Your task to perform on an android device: open device folders in google photos Image 0: 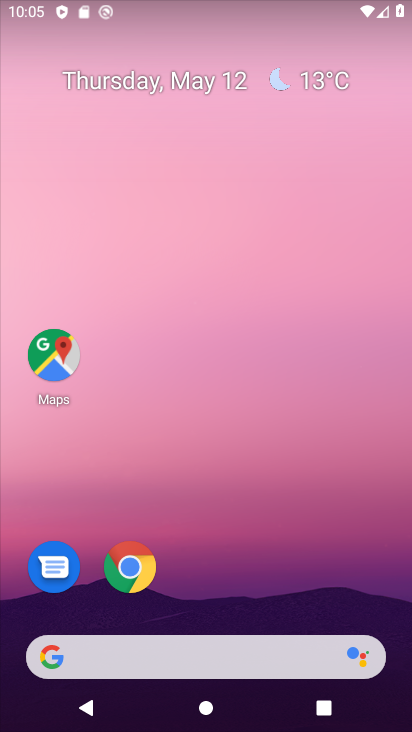
Step 0: drag from (268, 587) to (262, 149)
Your task to perform on an android device: open device folders in google photos Image 1: 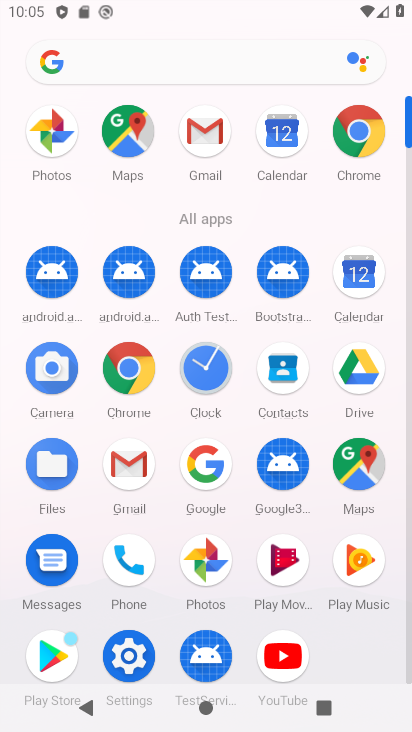
Step 1: click (50, 132)
Your task to perform on an android device: open device folders in google photos Image 2: 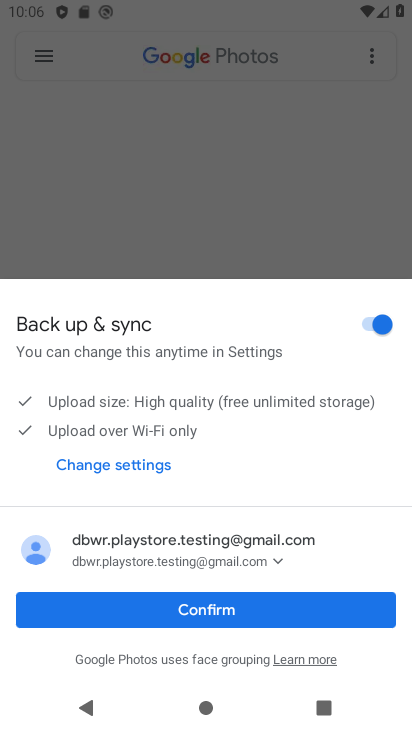
Step 2: press home button
Your task to perform on an android device: open device folders in google photos Image 3: 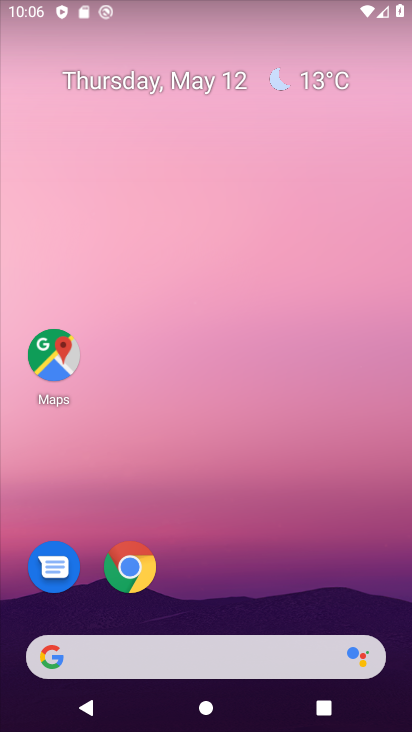
Step 3: drag from (182, 439) to (196, 136)
Your task to perform on an android device: open device folders in google photos Image 4: 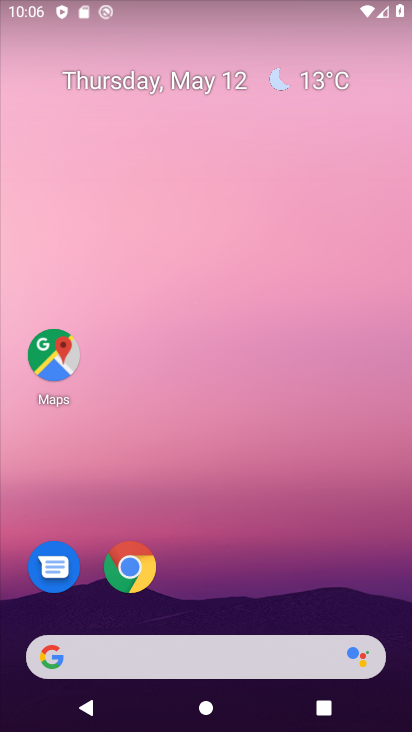
Step 4: drag from (204, 506) to (213, 138)
Your task to perform on an android device: open device folders in google photos Image 5: 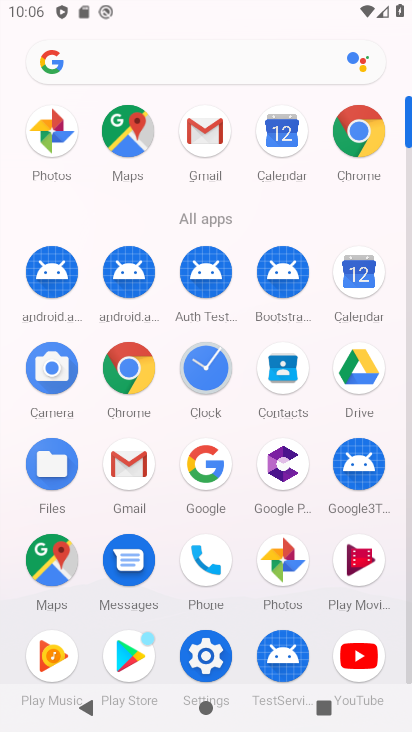
Step 5: click (42, 136)
Your task to perform on an android device: open device folders in google photos Image 6: 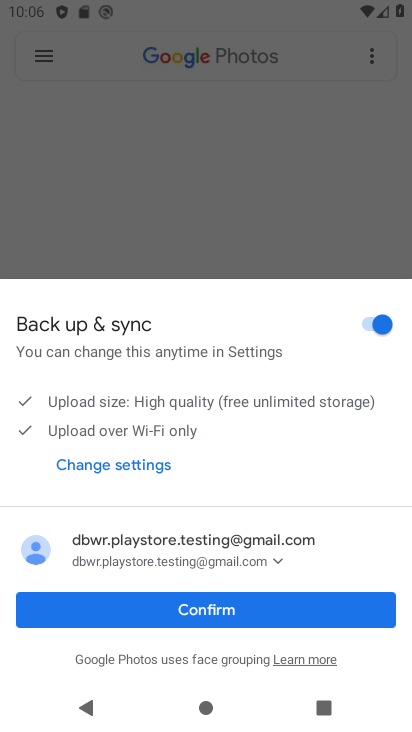
Step 6: press back button
Your task to perform on an android device: open device folders in google photos Image 7: 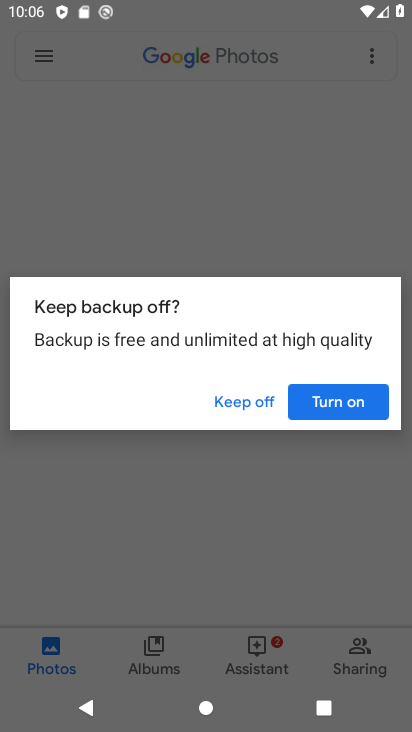
Step 7: click (330, 408)
Your task to perform on an android device: open device folders in google photos Image 8: 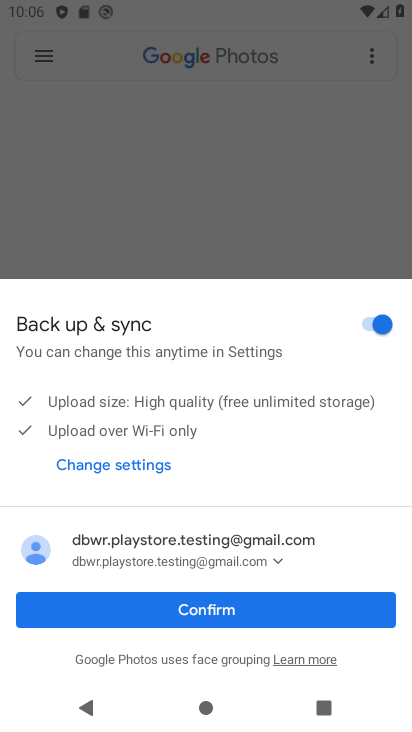
Step 8: click (265, 598)
Your task to perform on an android device: open device folders in google photos Image 9: 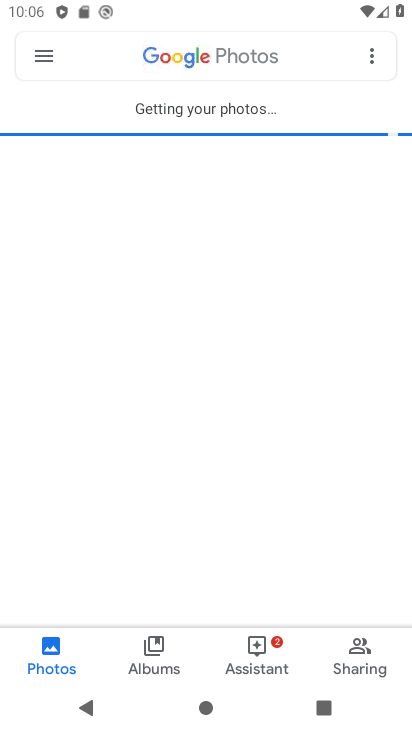
Step 9: click (45, 55)
Your task to perform on an android device: open device folders in google photos Image 10: 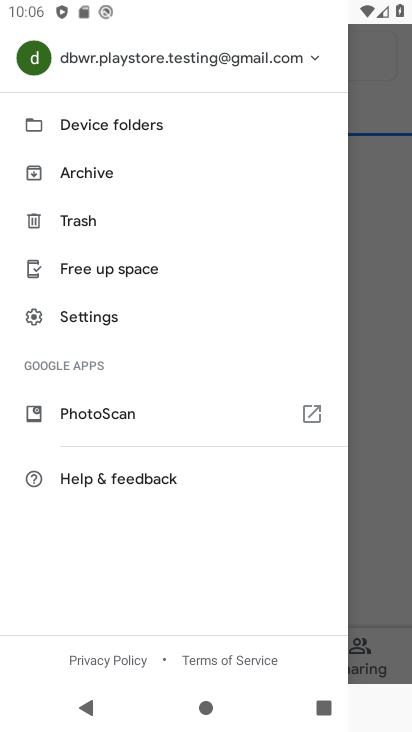
Step 10: click (82, 135)
Your task to perform on an android device: open device folders in google photos Image 11: 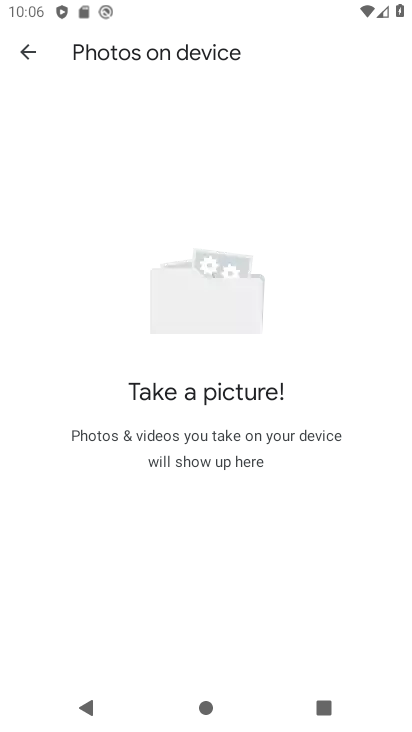
Step 11: task complete